Your task to perform on an android device: check data usage Image 0: 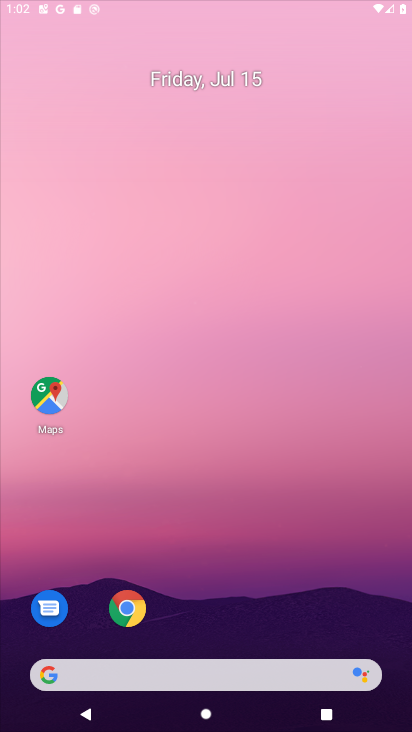
Step 0: drag from (287, 511) to (193, 77)
Your task to perform on an android device: check data usage Image 1: 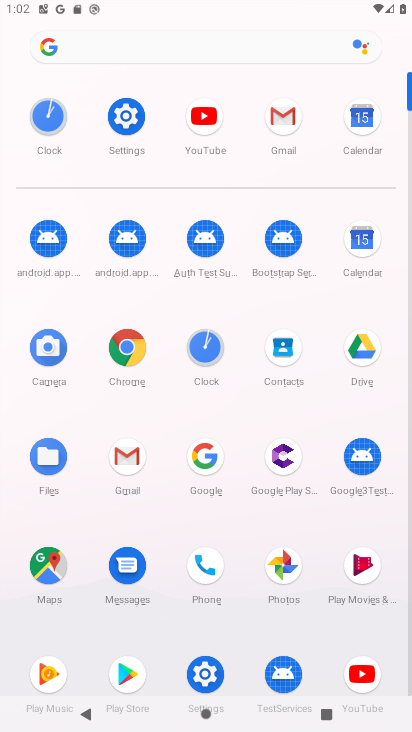
Step 1: click (127, 110)
Your task to perform on an android device: check data usage Image 2: 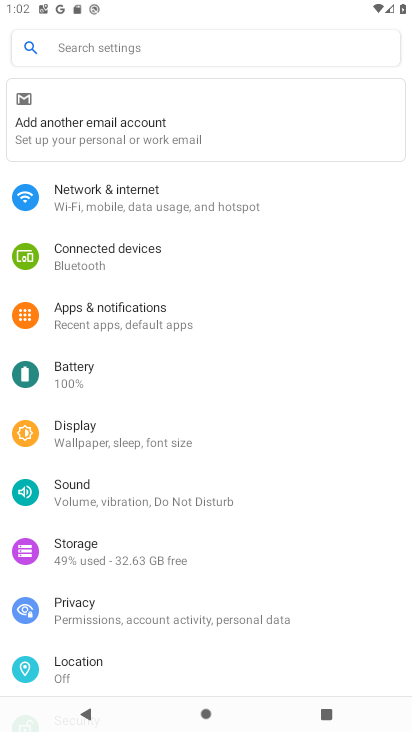
Step 2: click (112, 185)
Your task to perform on an android device: check data usage Image 3: 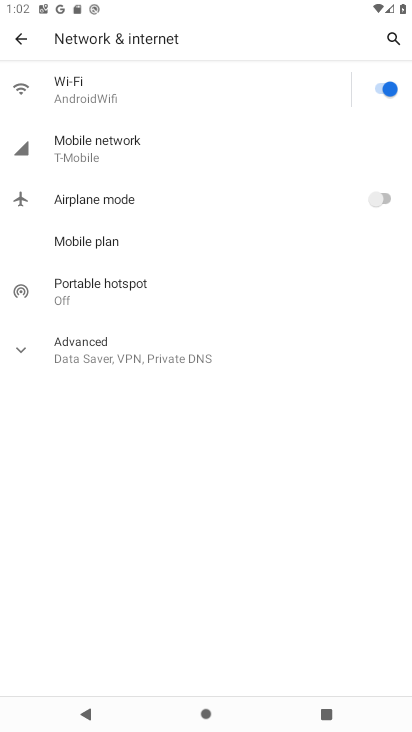
Step 3: click (115, 130)
Your task to perform on an android device: check data usage Image 4: 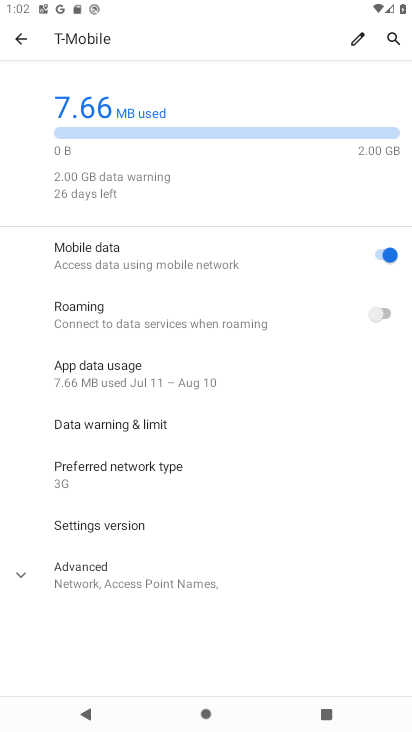
Step 4: task complete